Your task to perform on an android device: Open Reddit.com Image 0: 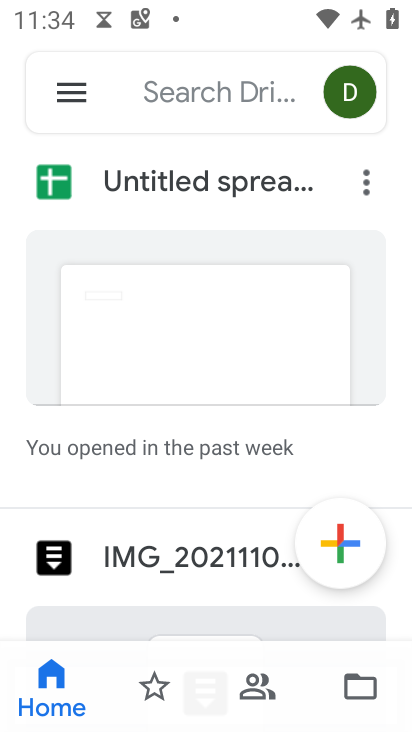
Step 0: press home button
Your task to perform on an android device: Open Reddit.com Image 1: 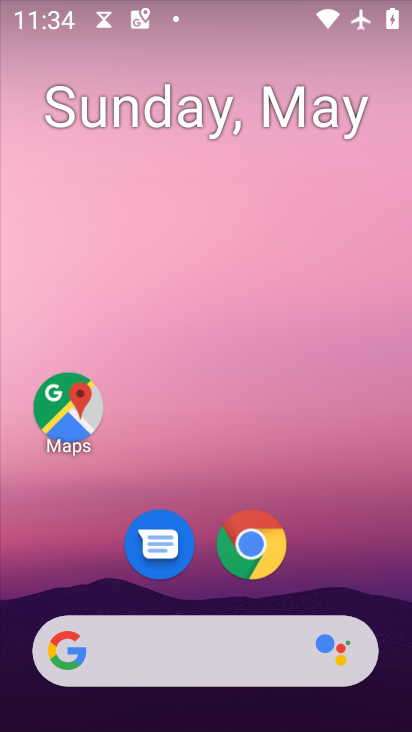
Step 1: click (251, 539)
Your task to perform on an android device: Open Reddit.com Image 2: 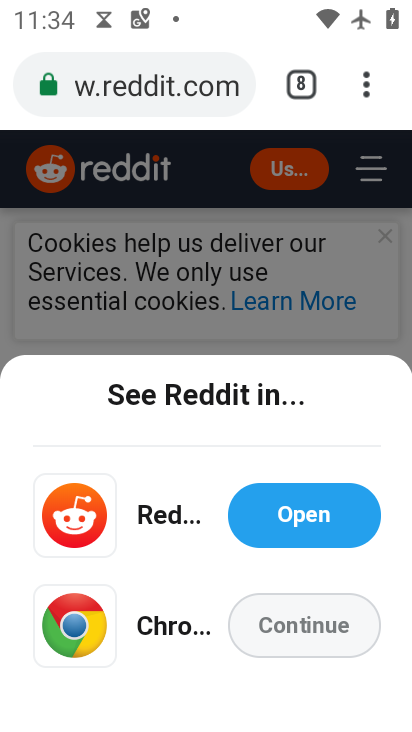
Step 2: click (255, 302)
Your task to perform on an android device: Open Reddit.com Image 3: 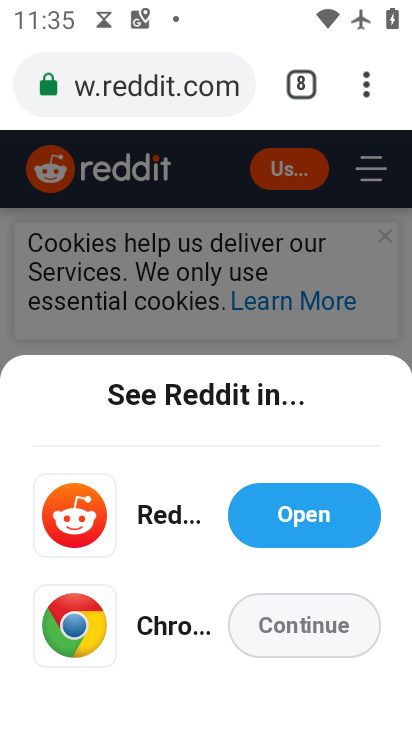
Step 3: task complete